Your task to perform on an android device: set the stopwatch Image 0: 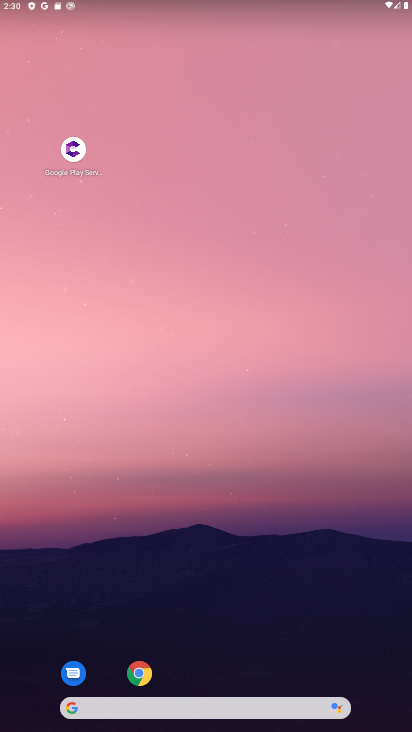
Step 0: drag from (223, 648) to (222, 241)
Your task to perform on an android device: set the stopwatch Image 1: 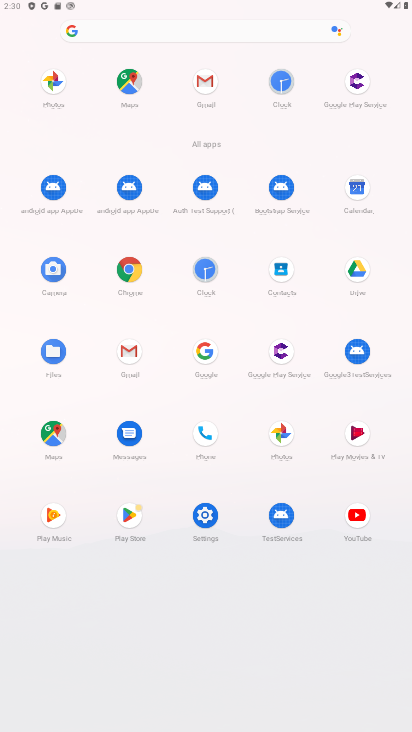
Step 1: click (275, 82)
Your task to perform on an android device: set the stopwatch Image 2: 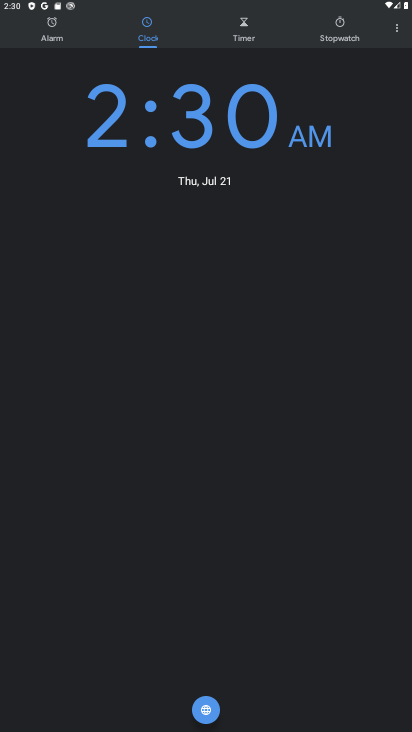
Step 2: click (350, 22)
Your task to perform on an android device: set the stopwatch Image 3: 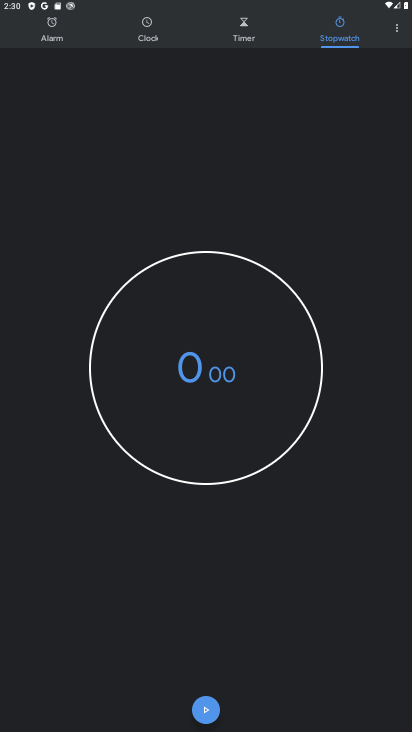
Step 3: click (213, 320)
Your task to perform on an android device: set the stopwatch Image 4: 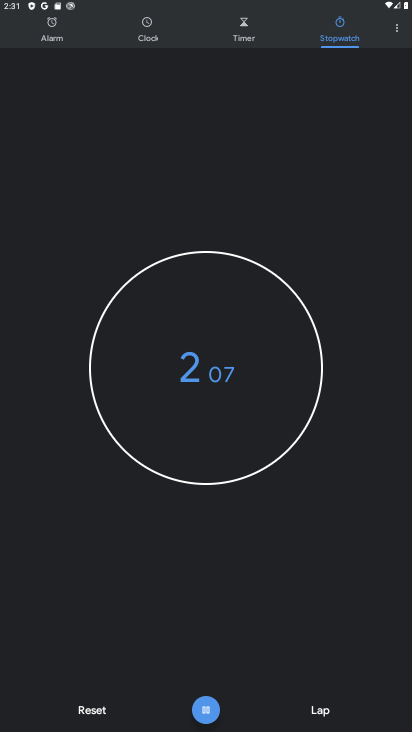
Step 4: task complete